Your task to perform on an android device: turn off smart reply in the gmail app Image 0: 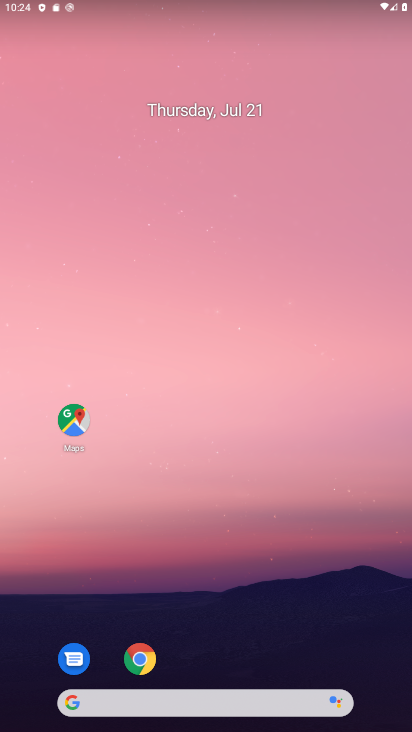
Step 0: drag from (199, 717) to (224, 13)
Your task to perform on an android device: turn off smart reply in the gmail app Image 1: 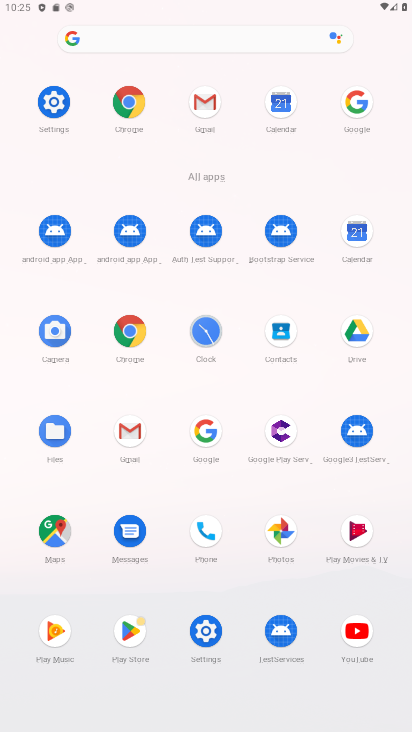
Step 1: click (138, 428)
Your task to perform on an android device: turn off smart reply in the gmail app Image 2: 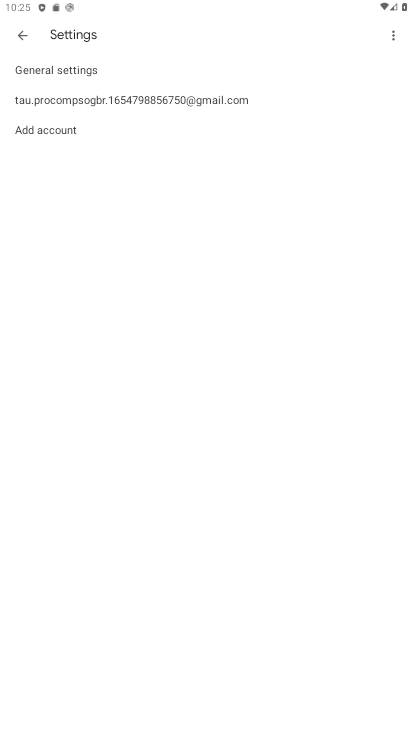
Step 2: click (110, 96)
Your task to perform on an android device: turn off smart reply in the gmail app Image 3: 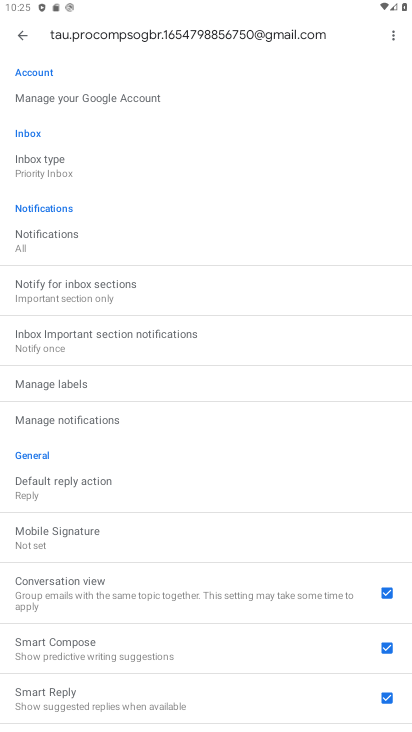
Step 3: click (388, 692)
Your task to perform on an android device: turn off smart reply in the gmail app Image 4: 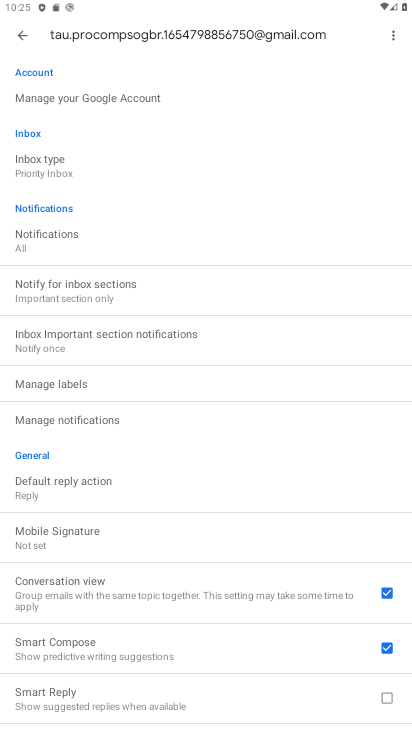
Step 4: task complete